Your task to perform on an android device: Open Google Maps and go to "Timeline" Image 0: 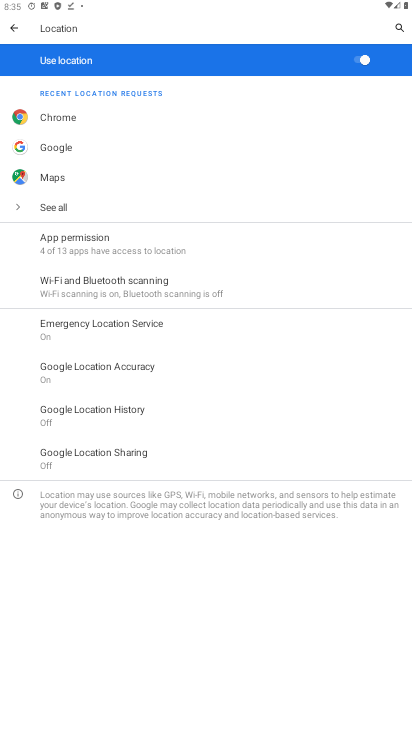
Step 0: press home button
Your task to perform on an android device: Open Google Maps and go to "Timeline" Image 1: 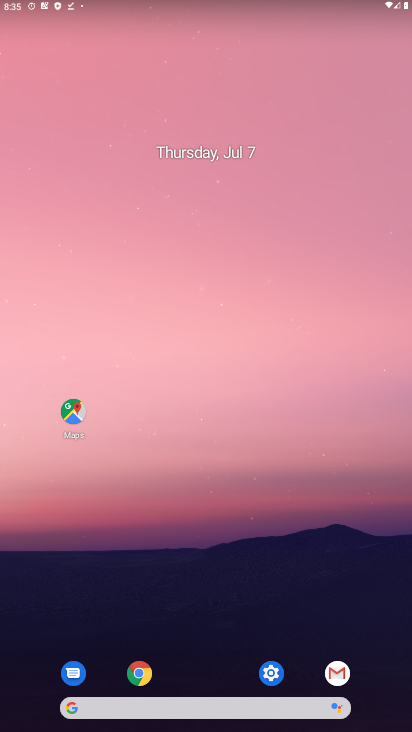
Step 1: click (77, 414)
Your task to perform on an android device: Open Google Maps and go to "Timeline" Image 2: 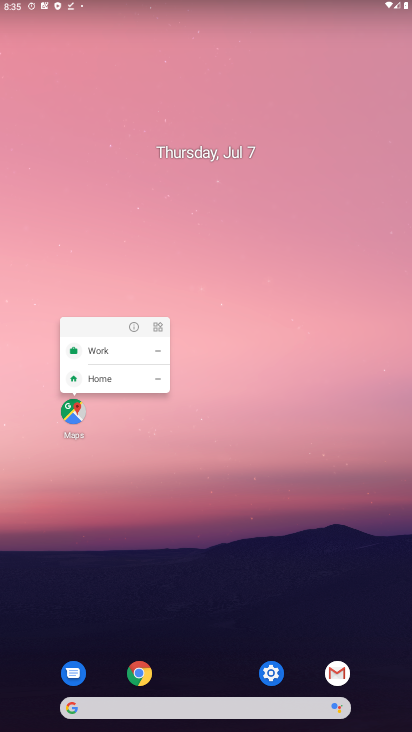
Step 2: click (72, 431)
Your task to perform on an android device: Open Google Maps and go to "Timeline" Image 3: 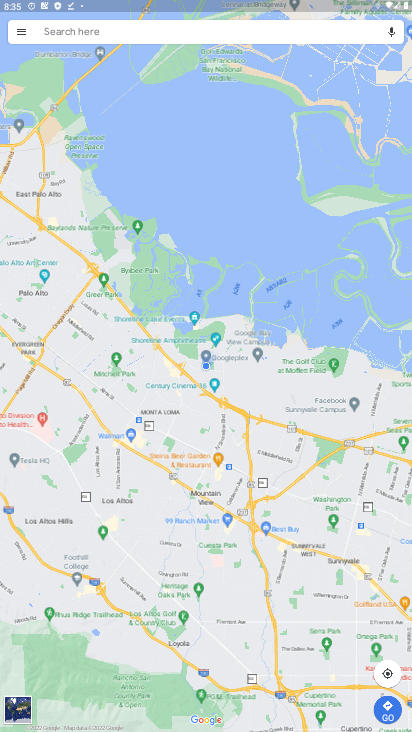
Step 3: click (25, 29)
Your task to perform on an android device: Open Google Maps and go to "Timeline" Image 4: 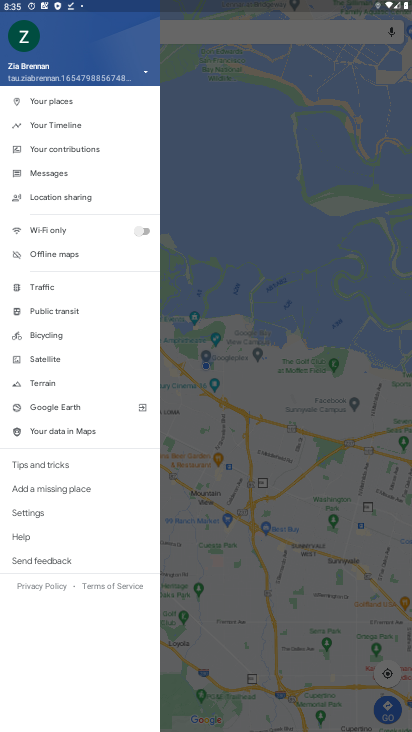
Step 4: click (53, 125)
Your task to perform on an android device: Open Google Maps and go to "Timeline" Image 5: 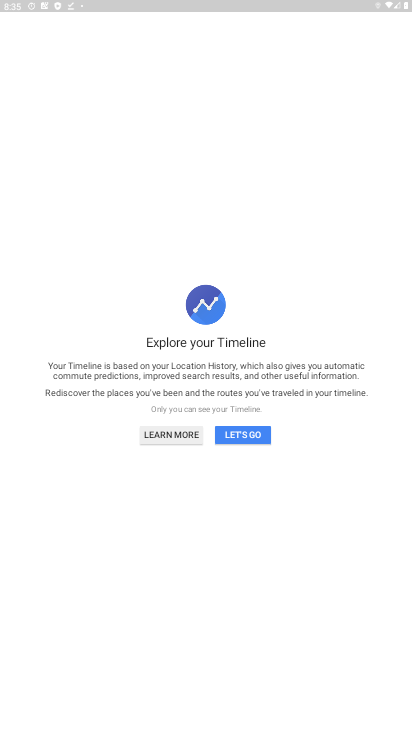
Step 5: click (234, 438)
Your task to perform on an android device: Open Google Maps and go to "Timeline" Image 6: 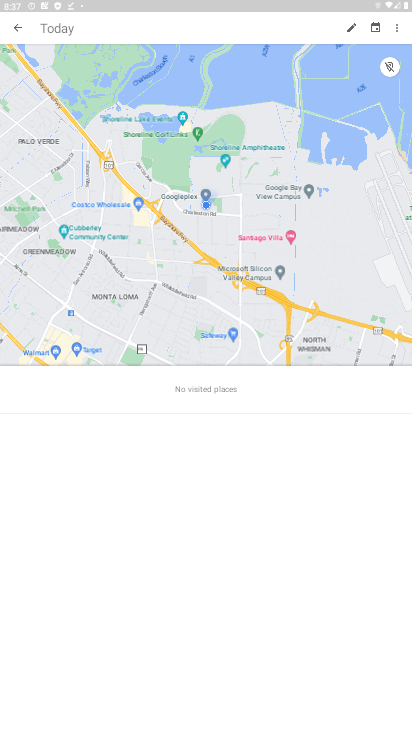
Step 6: task complete